Your task to perform on an android device: Open Google Chrome and click the shortcut for Amazon.com Image 0: 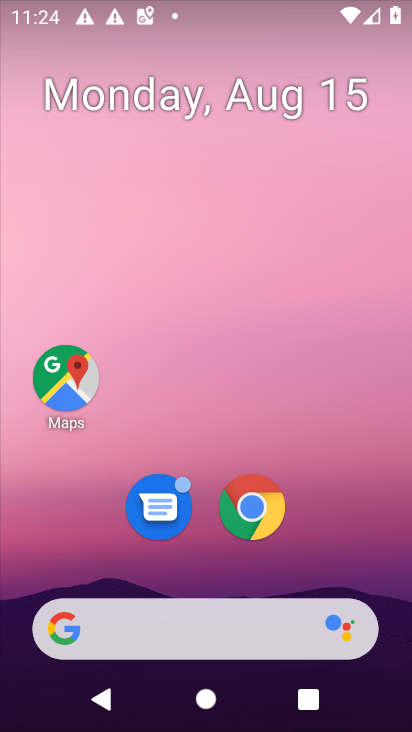
Step 0: click (259, 506)
Your task to perform on an android device: Open Google Chrome and click the shortcut for Amazon.com Image 1: 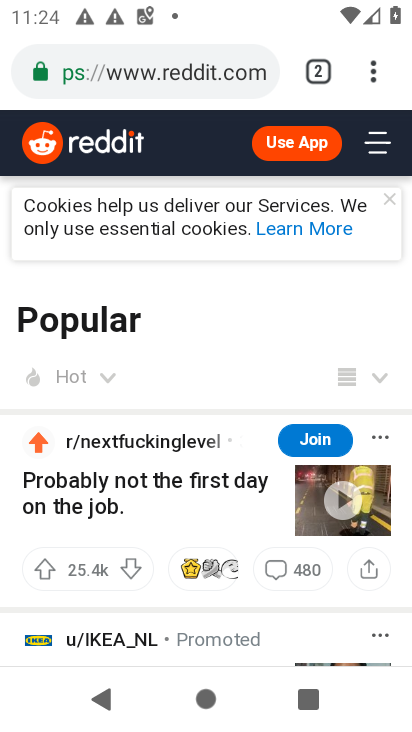
Step 1: click (364, 69)
Your task to perform on an android device: Open Google Chrome and click the shortcut for Amazon.com Image 2: 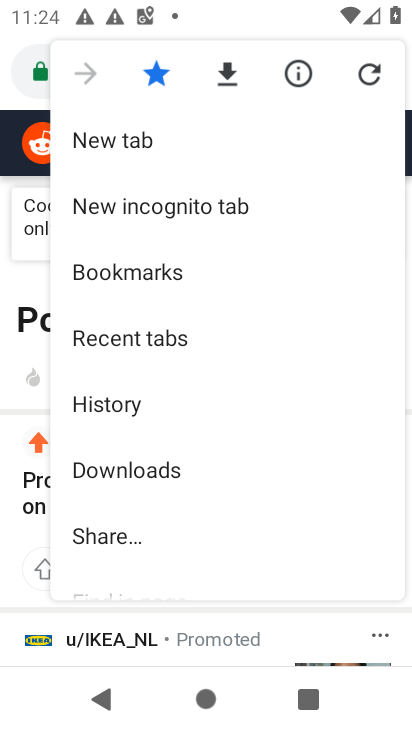
Step 2: click (145, 136)
Your task to perform on an android device: Open Google Chrome and click the shortcut for Amazon.com Image 3: 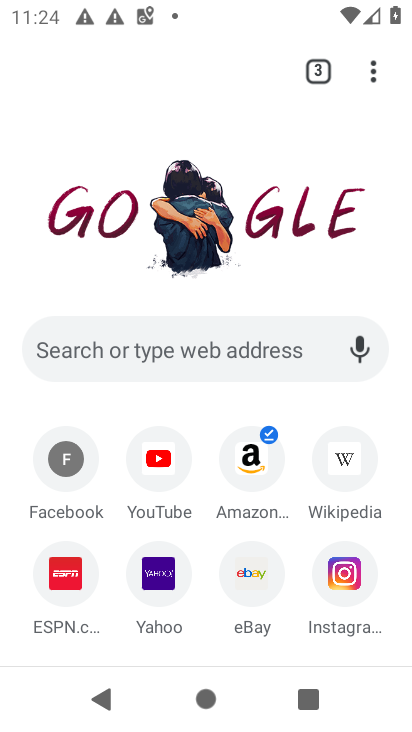
Step 3: click (263, 459)
Your task to perform on an android device: Open Google Chrome and click the shortcut for Amazon.com Image 4: 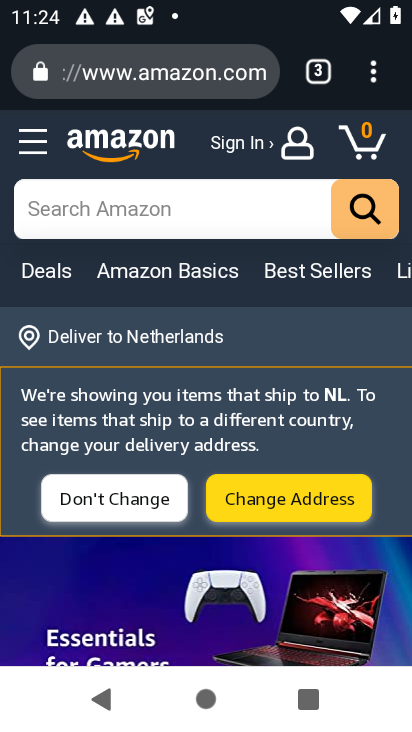
Step 4: task complete